Your task to perform on an android device: toggle airplane mode Image 0: 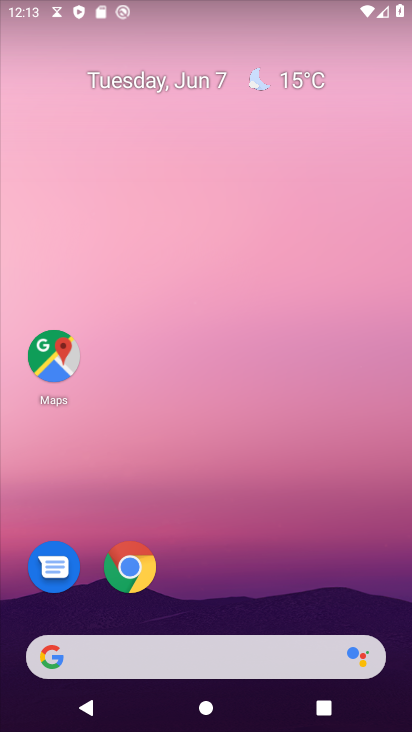
Step 0: drag from (296, 656) to (314, 145)
Your task to perform on an android device: toggle airplane mode Image 1: 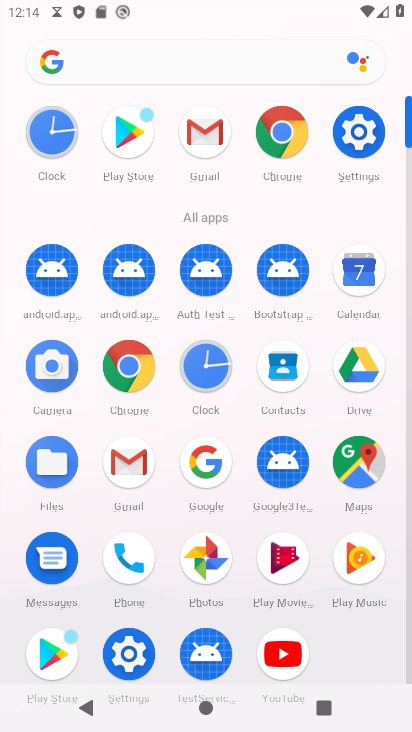
Step 1: click (359, 109)
Your task to perform on an android device: toggle airplane mode Image 2: 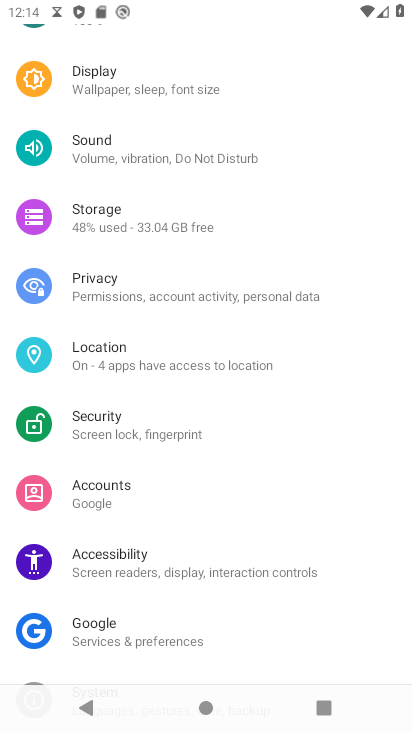
Step 2: drag from (180, 286) to (210, 716)
Your task to perform on an android device: toggle airplane mode Image 3: 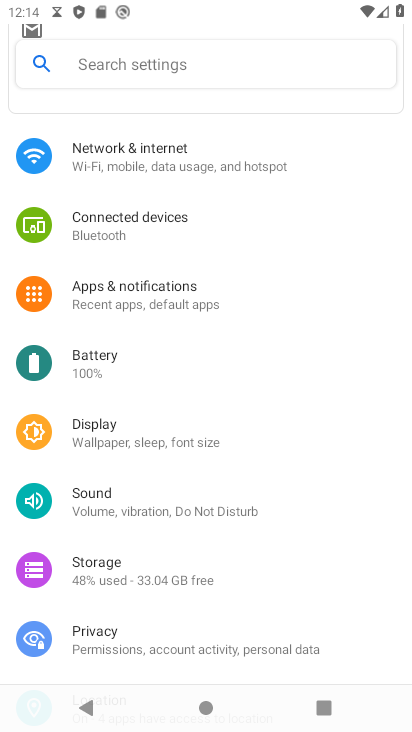
Step 3: click (217, 161)
Your task to perform on an android device: toggle airplane mode Image 4: 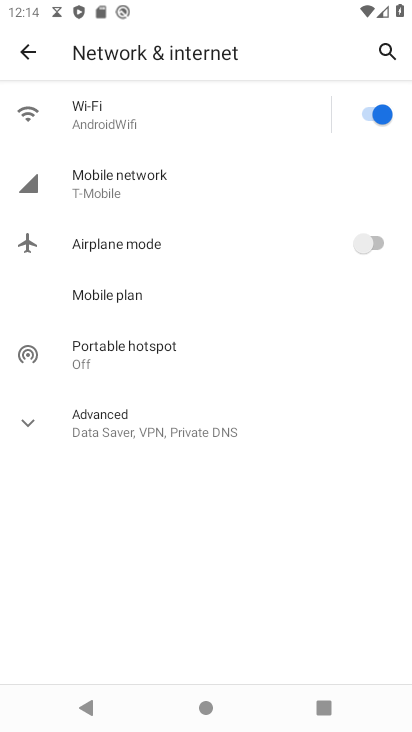
Step 4: click (375, 256)
Your task to perform on an android device: toggle airplane mode Image 5: 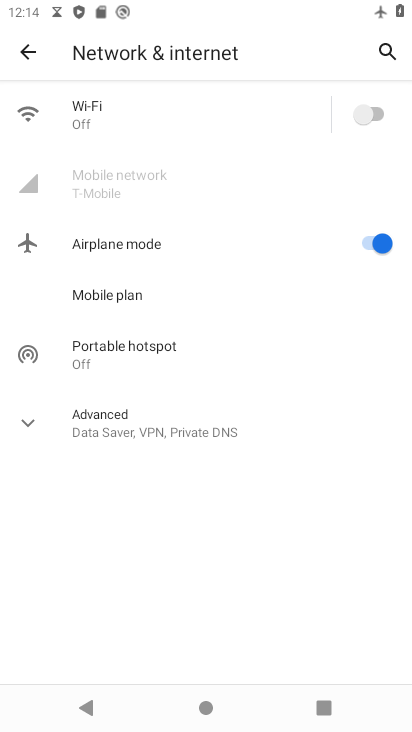
Step 5: task complete